Your task to perform on an android device: turn on improve location accuracy Image 0: 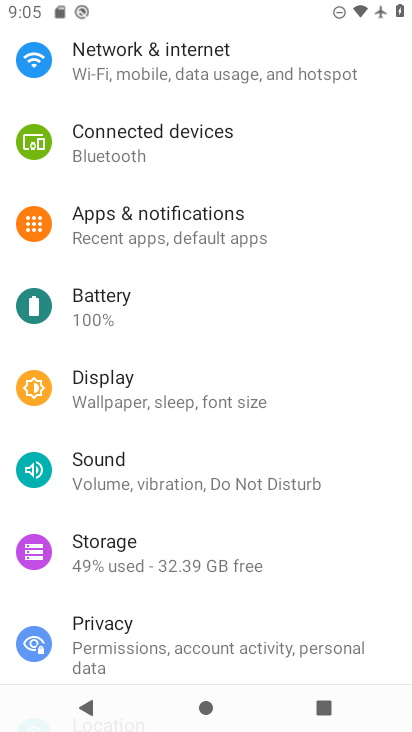
Step 0: press home button
Your task to perform on an android device: turn on improve location accuracy Image 1: 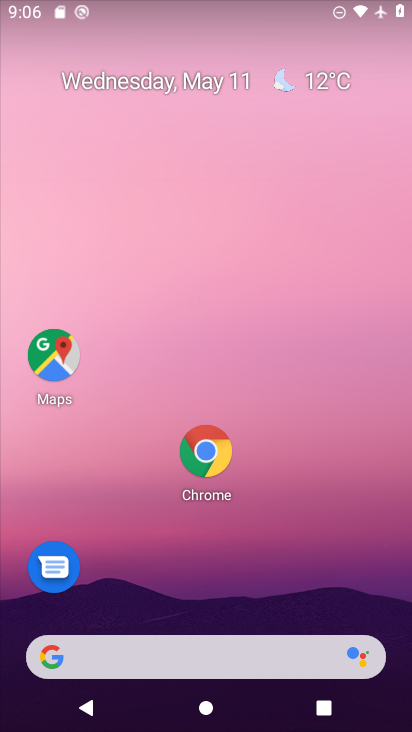
Step 1: drag from (159, 662) to (264, 245)
Your task to perform on an android device: turn on improve location accuracy Image 2: 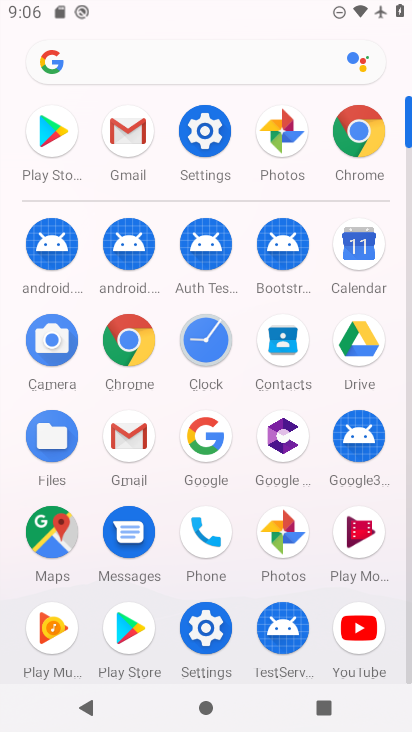
Step 2: click (194, 138)
Your task to perform on an android device: turn on improve location accuracy Image 3: 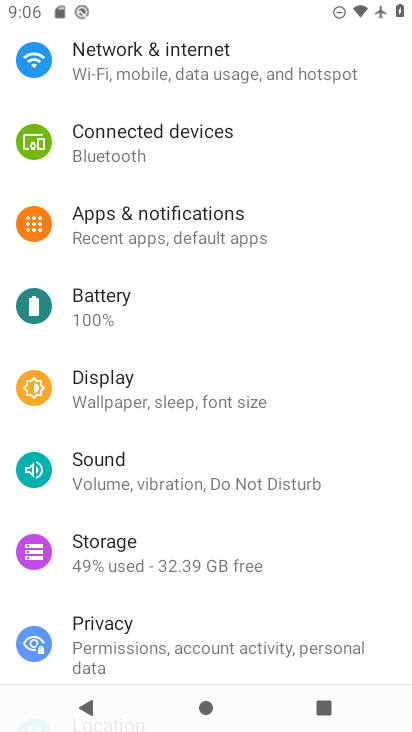
Step 3: drag from (196, 609) to (276, 388)
Your task to perform on an android device: turn on improve location accuracy Image 4: 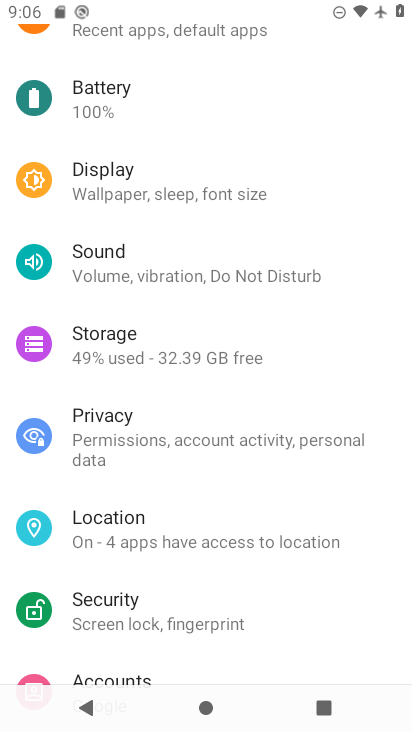
Step 4: click (115, 536)
Your task to perform on an android device: turn on improve location accuracy Image 5: 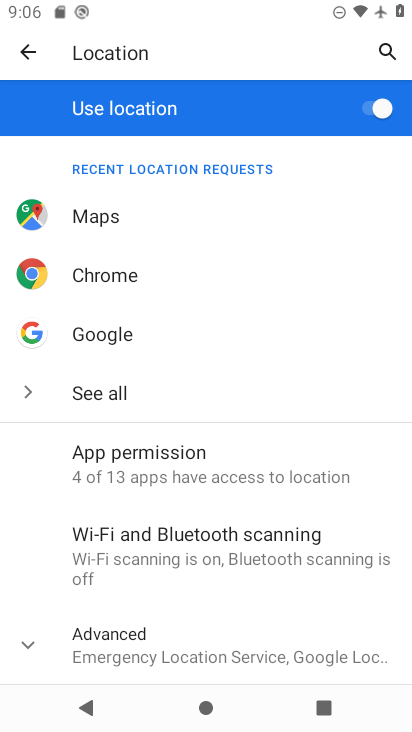
Step 5: drag from (202, 517) to (324, 260)
Your task to perform on an android device: turn on improve location accuracy Image 6: 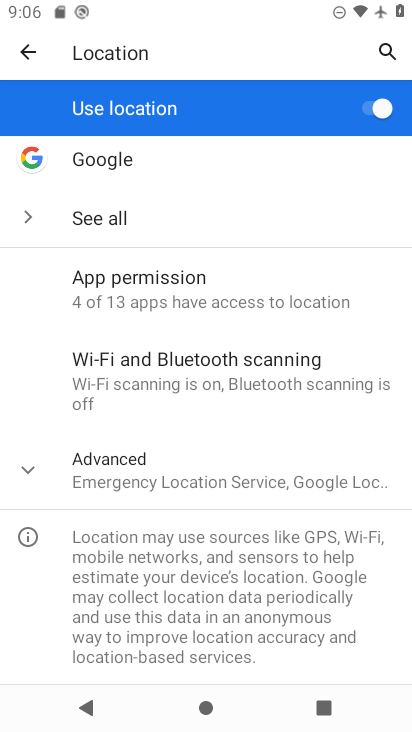
Step 6: click (149, 483)
Your task to perform on an android device: turn on improve location accuracy Image 7: 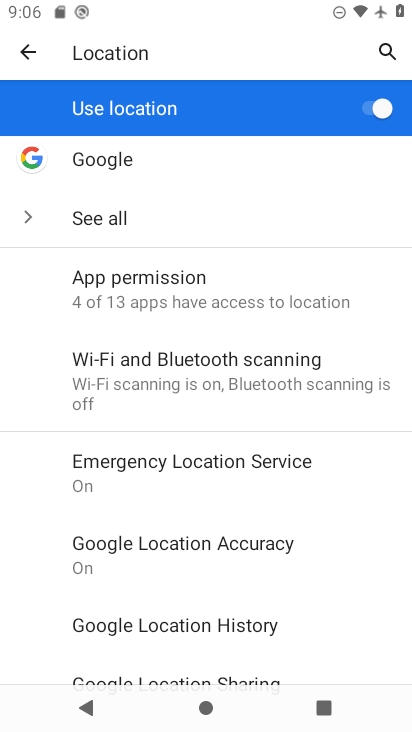
Step 7: click (134, 547)
Your task to perform on an android device: turn on improve location accuracy Image 8: 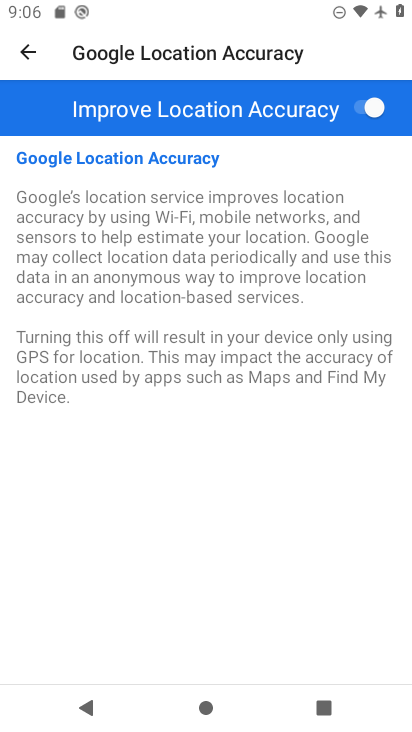
Step 8: task complete